Your task to perform on an android device: toggle improve location accuracy Image 0: 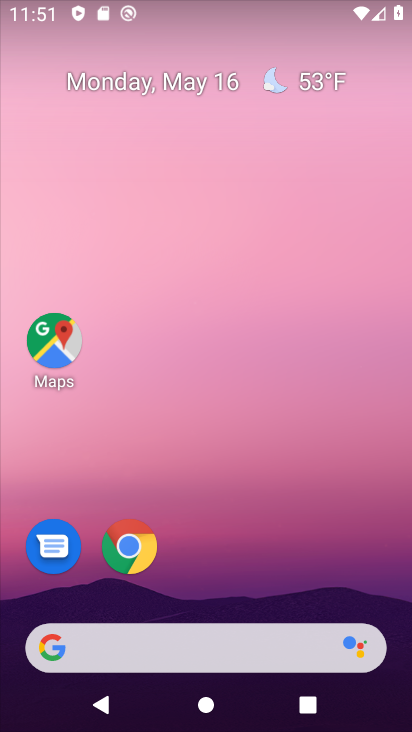
Step 0: drag from (206, 582) to (222, 127)
Your task to perform on an android device: toggle improve location accuracy Image 1: 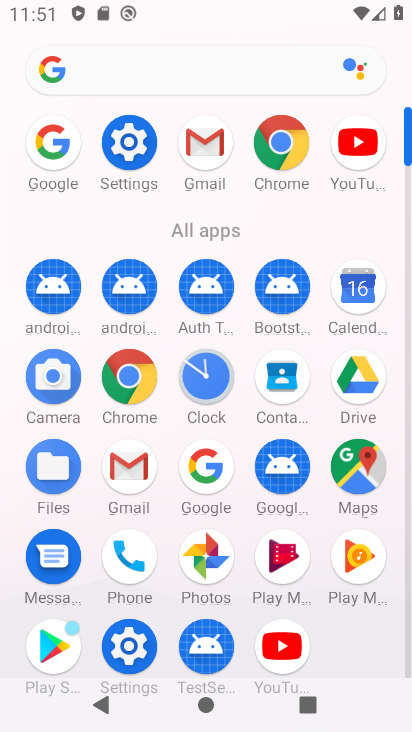
Step 1: click (130, 151)
Your task to perform on an android device: toggle improve location accuracy Image 2: 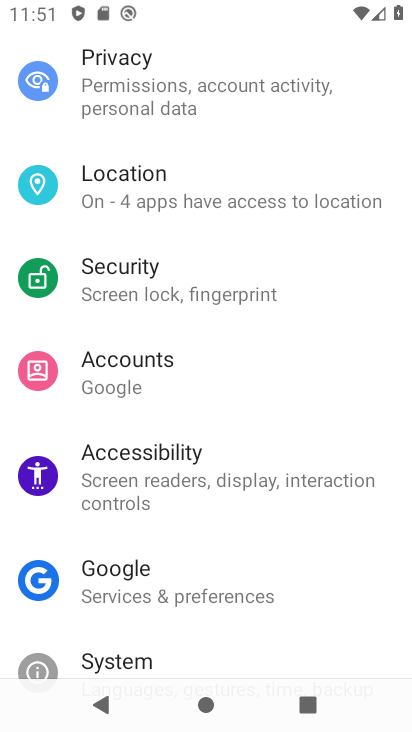
Step 2: click (192, 191)
Your task to perform on an android device: toggle improve location accuracy Image 3: 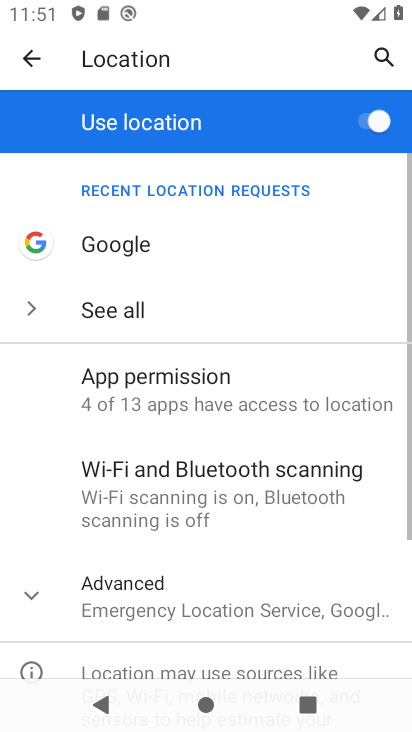
Step 3: click (133, 603)
Your task to perform on an android device: toggle improve location accuracy Image 4: 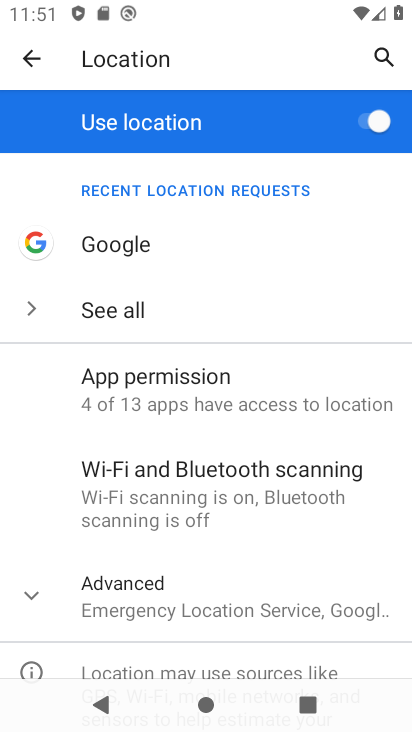
Step 4: click (110, 597)
Your task to perform on an android device: toggle improve location accuracy Image 5: 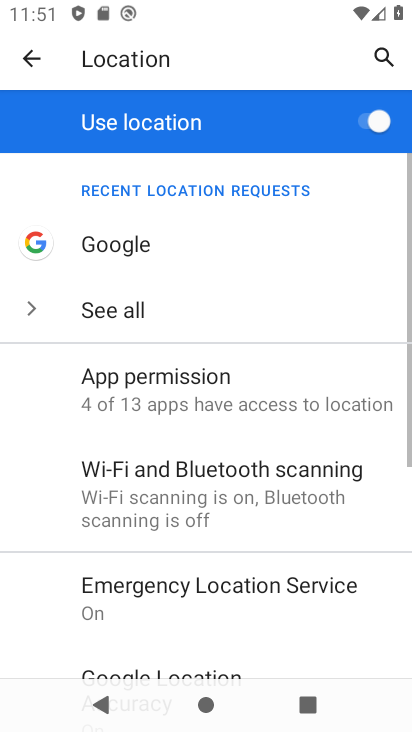
Step 5: drag from (345, 519) to (336, 160)
Your task to perform on an android device: toggle improve location accuracy Image 6: 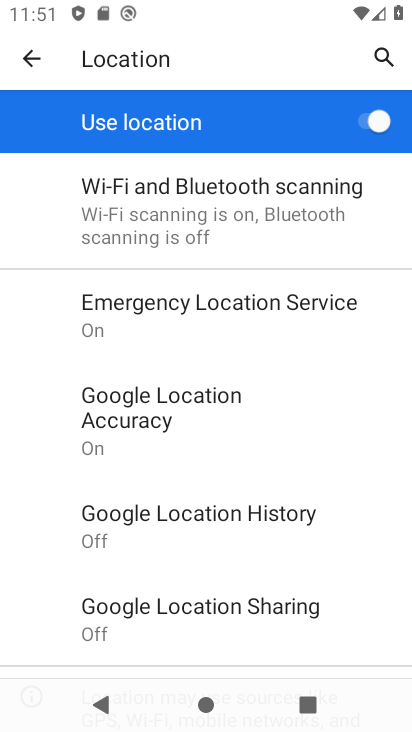
Step 6: click (162, 417)
Your task to perform on an android device: toggle improve location accuracy Image 7: 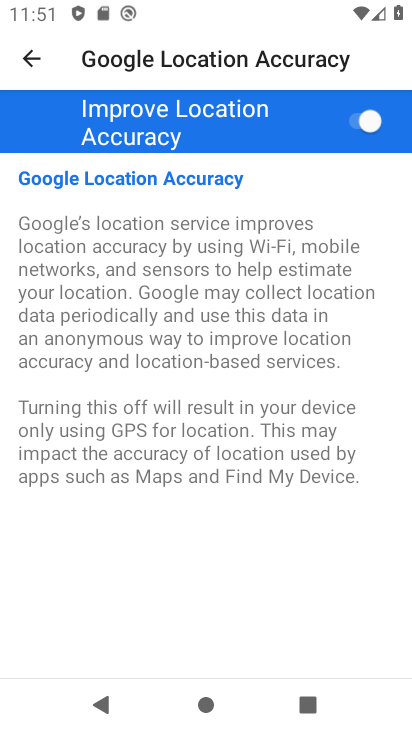
Step 7: click (360, 120)
Your task to perform on an android device: toggle improve location accuracy Image 8: 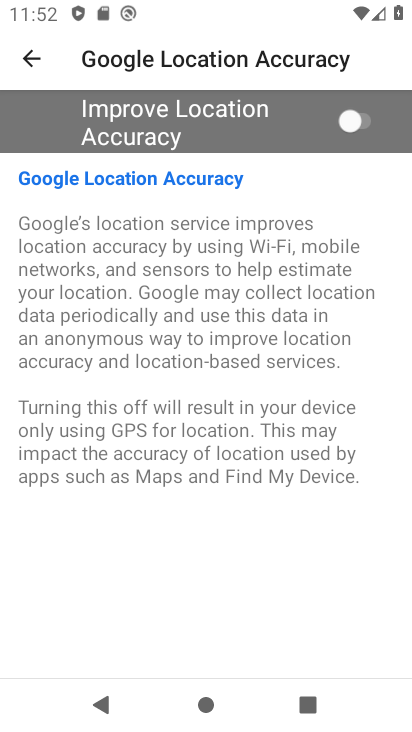
Step 8: task complete